Your task to perform on an android device: Search for "asus zenbook" on walmart, select the first entry, add it to the cart, then select checkout. Image 0: 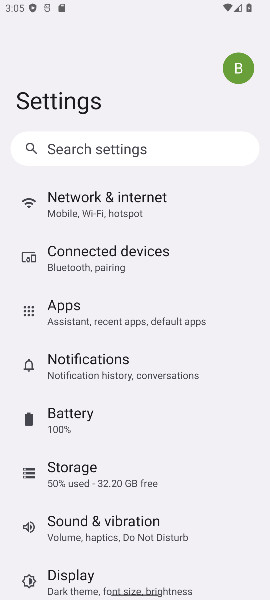
Step 0: press home button
Your task to perform on an android device: Search for "asus zenbook" on walmart, select the first entry, add it to the cart, then select checkout. Image 1: 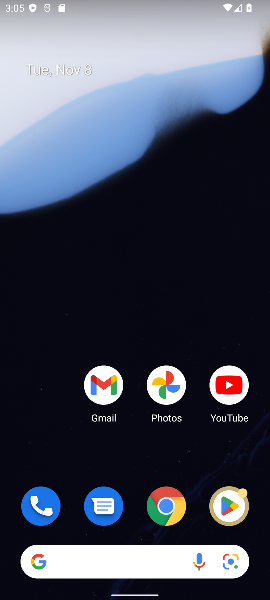
Step 1: drag from (192, 489) to (196, 101)
Your task to perform on an android device: Search for "asus zenbook" on walmart, select the first entry, add it to the cart, then select checkout. Image 2: 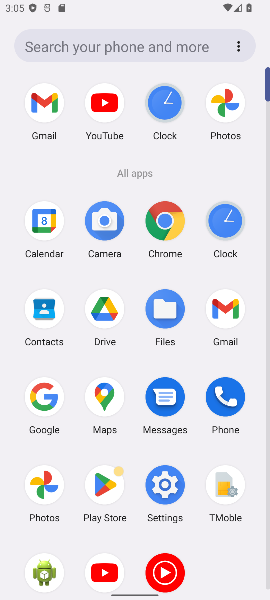
Step 2: click (39, 418)
Your task to perform on an android device: Search for "asus zenbook" on walmart, select the first entry, add it to the cart, then select checkout. Image 3: 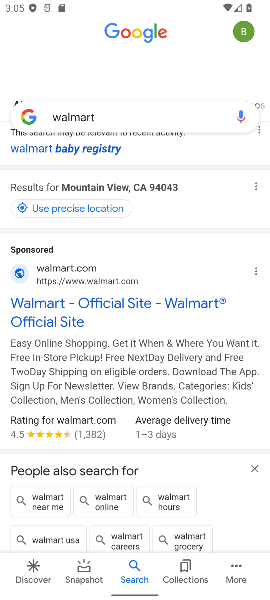
Step 3: click (76, 327)
Your task to perform on an android device: Search for "asus zenbook" on walmart, select the first entry, add it to the cart, then select checkout. Image 4: 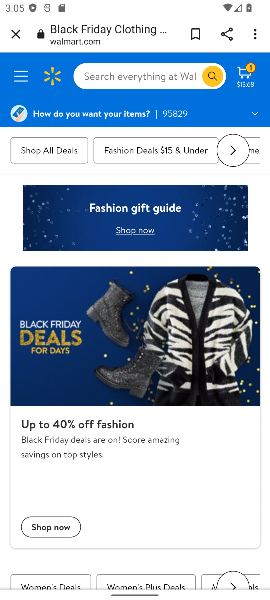
Step 4: click (156, 92)
Your task to perform on an android device: Search for "asus zenbook" on walmart, select the first entry, add it to the cart, then select checkout. Image 5: 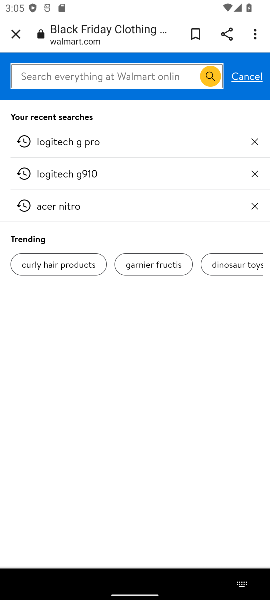
Step 5: type "asus zenbook"
Your task to perform on an android device: Search for "asus zenbook" on walmart, select the first entry, add it to the cart, then select checkout. Image 6: 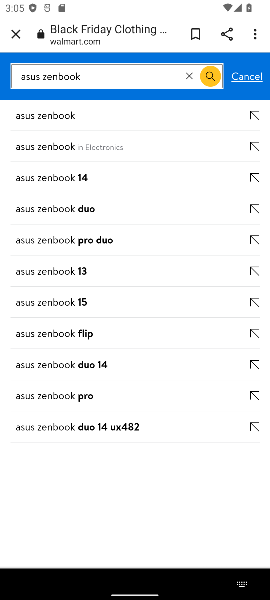
Step 6: click (209, 76)
Your task to perform on an android device: Search for "asus zenbook" on walmart, select the first entry, add it to the cart, then select checkout. Image 7: 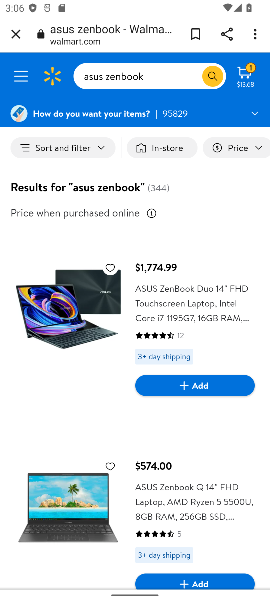
Step 7: click (205, 386)
Your task to perform on an android device: Search for "asus zenbook" on walmart, select the first entry, add it to the cart, then select checkout. Image 8: 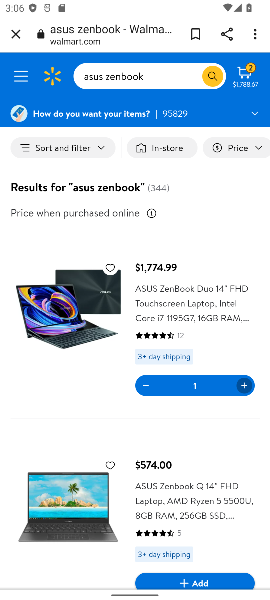
Step 8: click (248, 81)
Your task to perform on an android device: Search for "asus zenbook" on walmart, select the first entry, add it to the cart, then select checkout. Image 9: 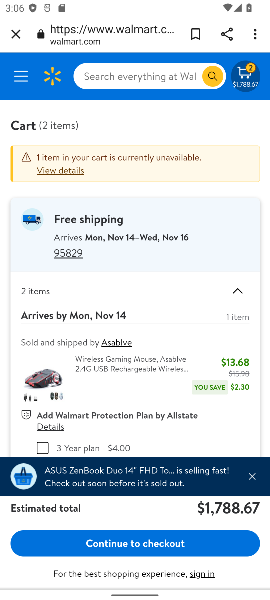
Step 9: click (200, 543)
Your task to perform on an android device: Search for "asus zenbook" on walmart, select the first entry, add it to the cart, then select checkout. Image 10: 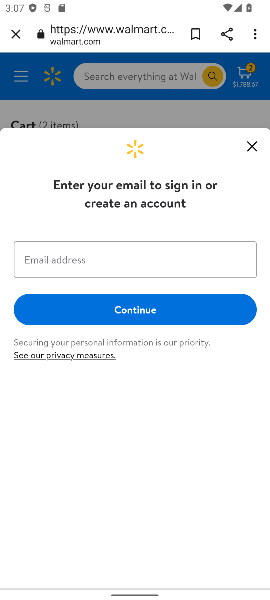
Step 10: task complete